Your task to perform on an android device: empty trash in the gmail app Image 0: 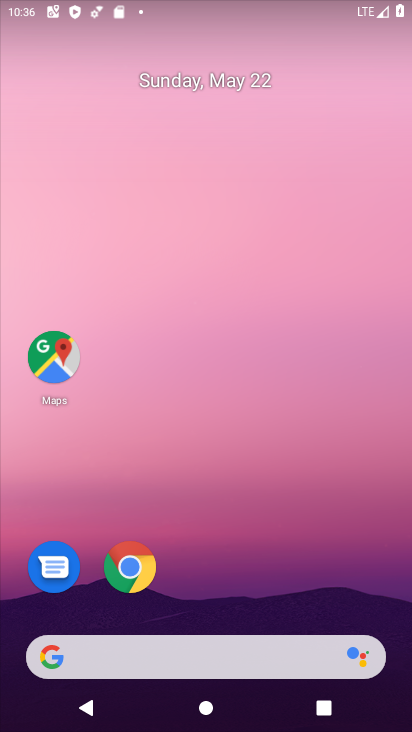
Step 0: drag from (389, 616) to (359, 13)
Your task to perform on an android device: empty trash in the gmail app Image 1: 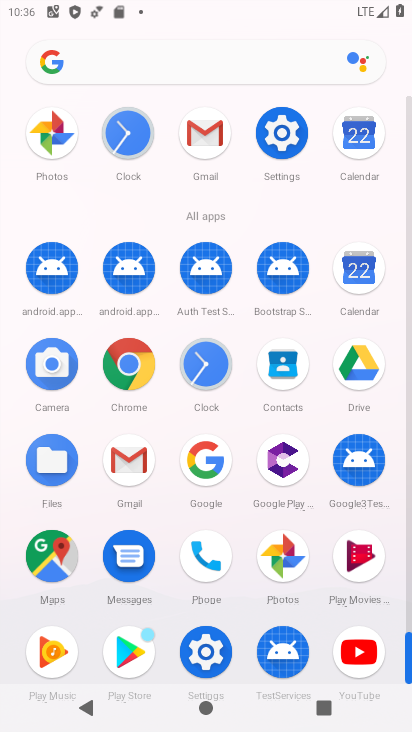
Step 1: click (128, 456)
Your task to perform on an android device: empty trash in the gmail app Image 2: 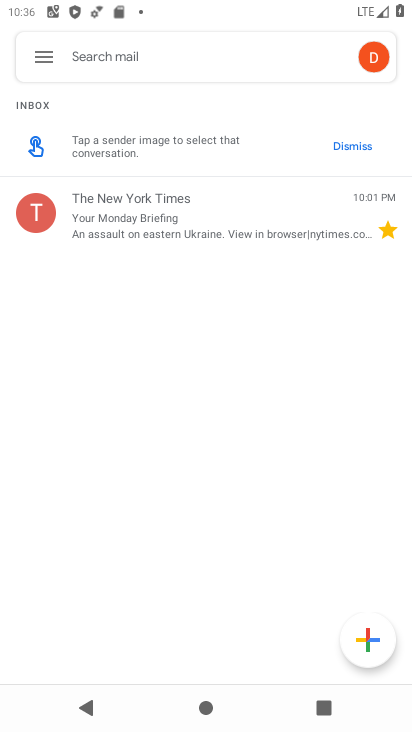
Step 2: click (41, 60)
Your task to perform on an android device: empty trash in the gmail app Image 3: 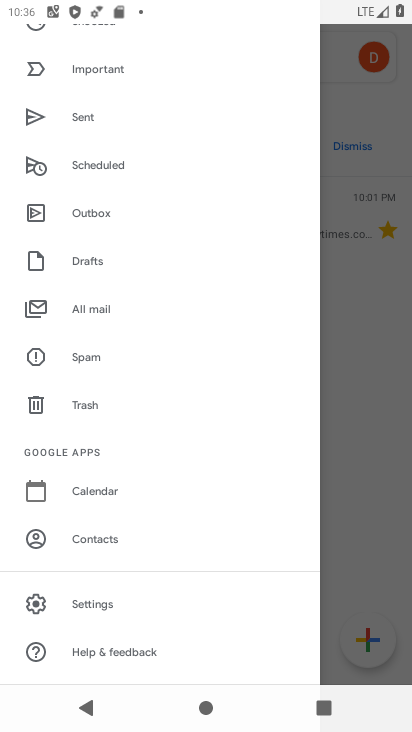
Step 3: click (81, 403)
Your task to perform on an android device: empty trash in the gmail app Image 4: 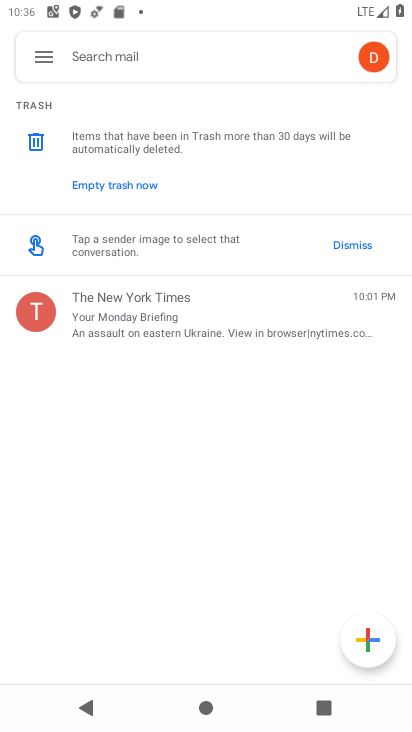
Step 4: click (106, 175)
Your task to perform on an android device: empty trash in the gmail app Image 5: 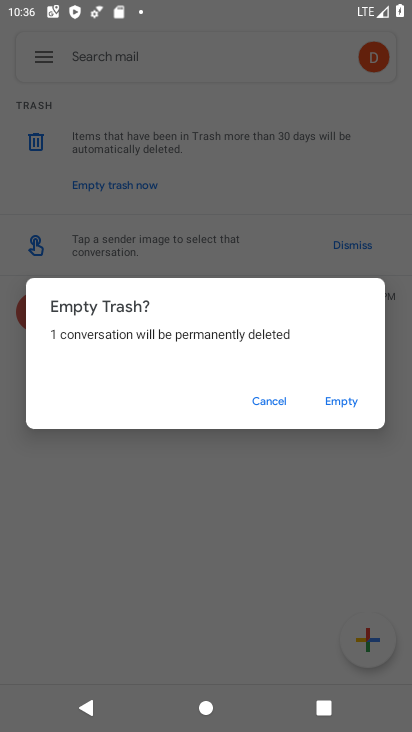
Step 5: click (340, 399)
Your task to perform on an android device: empty trash in the gmail app Image 6: 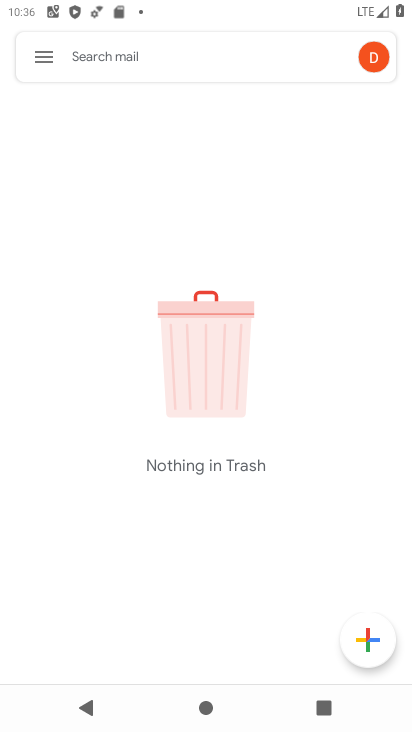
Step 6: task complete